Your task to perform on an android device: Show the shopping cart on ebay. Add "usb-c to usb-a" to the cart on ebay Image 0: 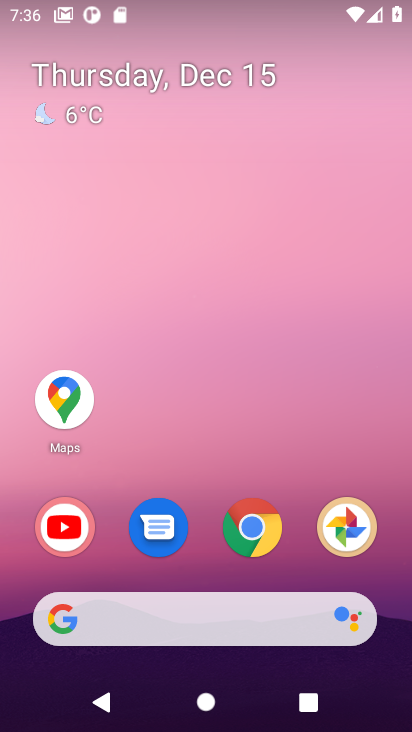
Step 0: click (156, 621)
Your task to perform on an android device: Show the shopping cart on ebay. Add "usb-c to usb-a" to the cart on ebay Image 1: 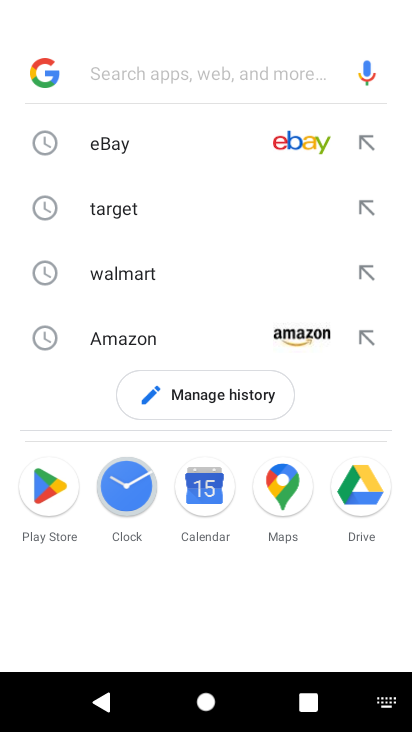
Step 1: click (203, 138)
Your task to perform on an android device: Show the shopping cart on ebay. Add "usb-c to usb-a" to the cart on ebay Image 2: 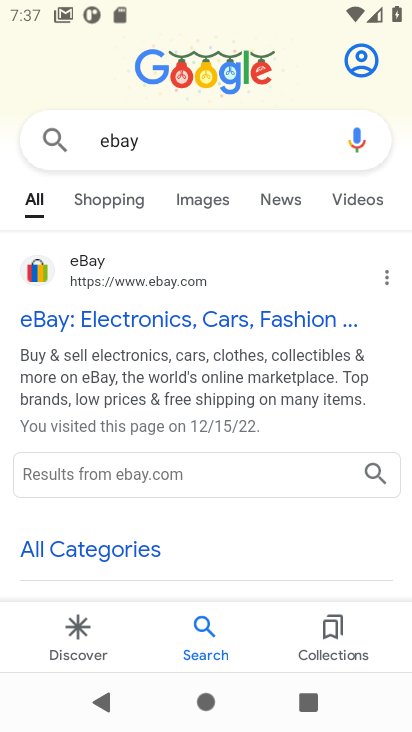
Step 2: click (60, 326)
Your task to perform on an android device: Show the shopping cart on ebay. Add "usb-c to usb-a" to the cart on ebay Image 3: 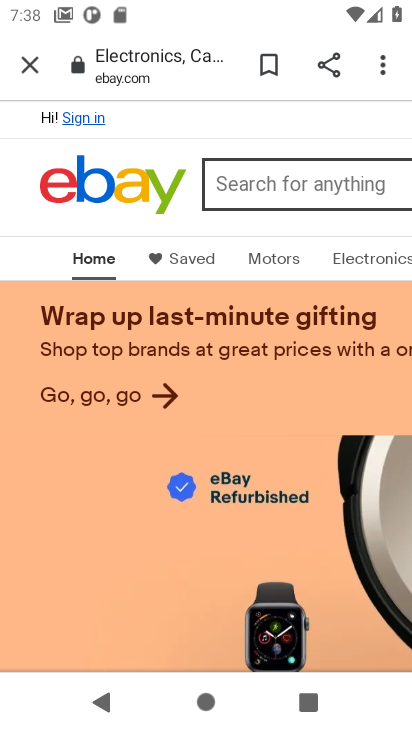
Step 3: click (264, 181)
Your task to perform on an android device: Show the shopping cart on ebay. Add "usb-c to usb-a" to the cart on ebay Image 4: 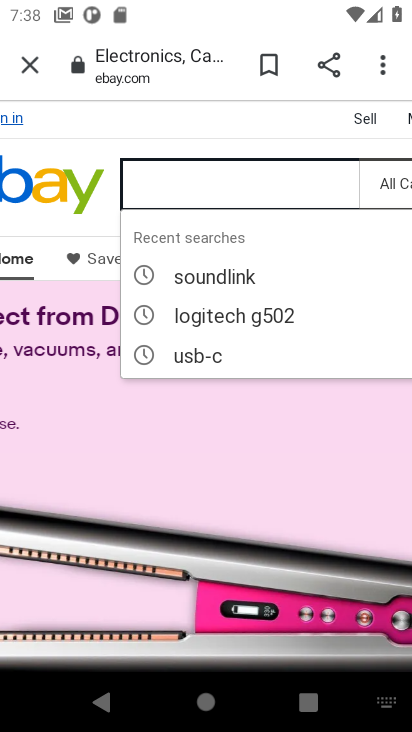
Step 4: type "usb-c to usb-a"
Your task to perform on an android device: Show the shopping cart on ebay. Add "usb-c to usb-a" to the cart on ebay Image 5: 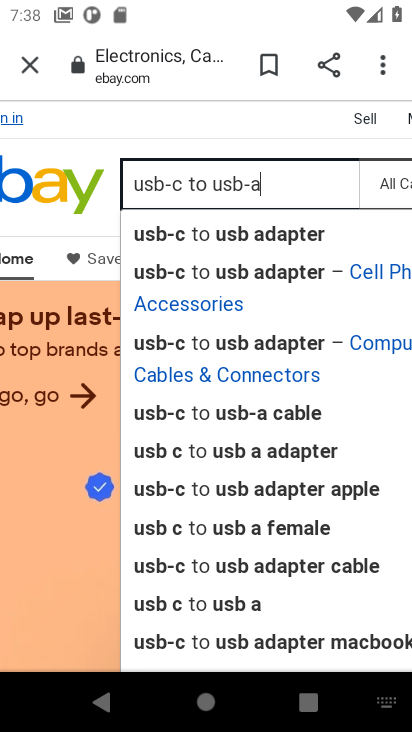
Step 5: drag from (151, 145) to (5, 189)
Your task to perform on an android device: Show the shopping cart on ebay. Add "usb-c to usb-a" to the cart on ebay Image 6: 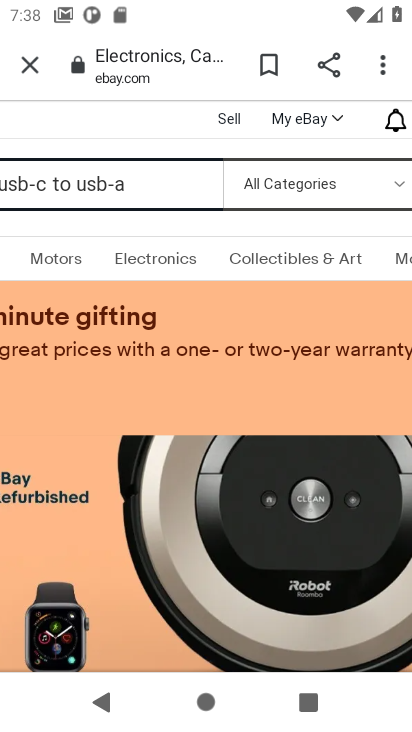
Step 6: drag from (254, 223) to (51, 215)
Your task to perform on an android device: Show the shopping cart on ebay. Add "usb-c to usb-a" to the cart on ebay Image 7: 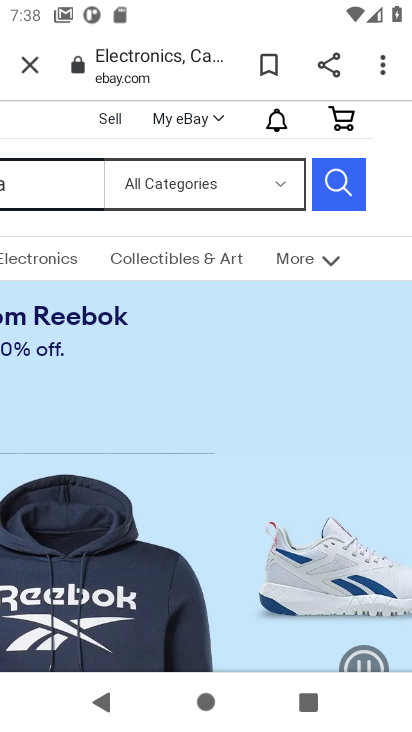
Step 7: click (329, 207)
Your task to perform on an android device: Show the shopping cart on ebay. Add "usb-c to usb-a" to the cart on ebay Image 8: 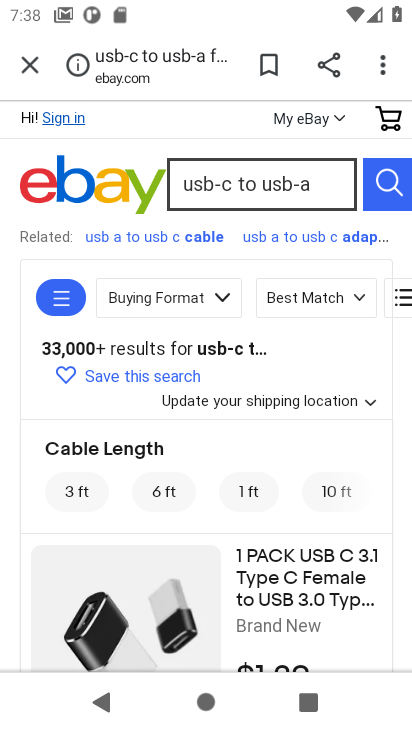
Step 8: click (243, 616)
Your task to perform on an android device: Show the shopping cart on ebay. Add "usb-c to usb-a" to the cart on ebay Image 9: 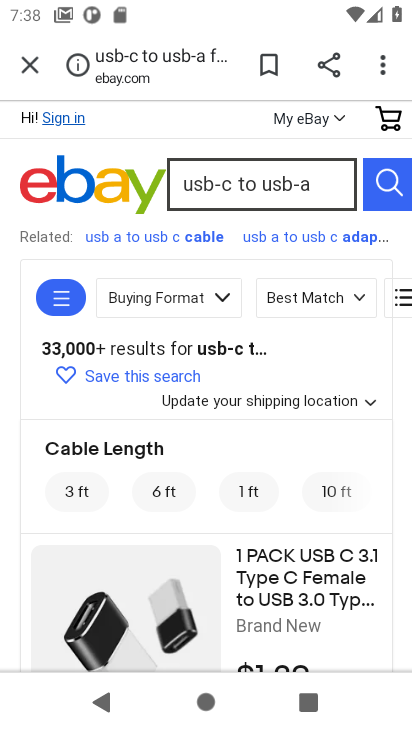
Step 9: drag from (315, 601) to (309, 314)
Your task to perform on an android device: Show the shopping cart on ebay. Add "usb-c to usb-a" to the cart on ebay Image 10: 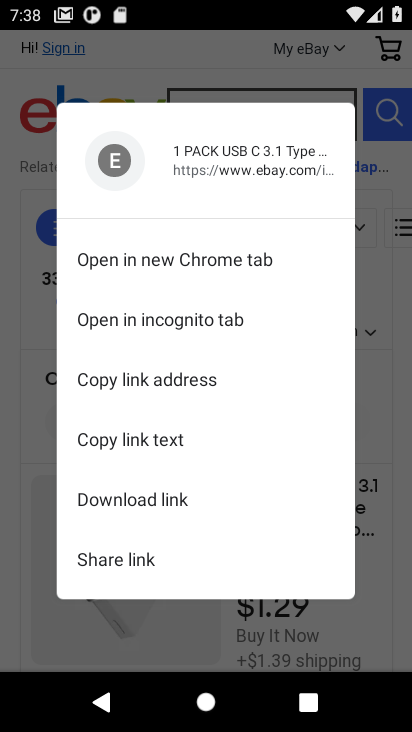
Step 10: click (84, 604)
Your task to perform on an android device: Show the shopping cart on ebay. Add "usb-c to usb-a" to the cart on ebay Image 11: 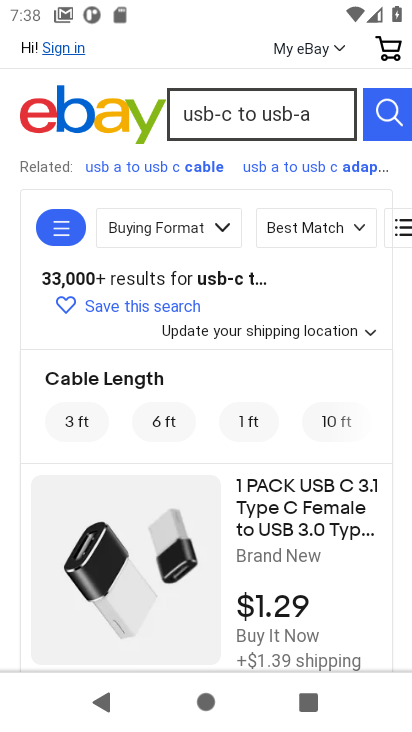
Step 11: task complete